Your task to perform on an android device: Open the phone app and click the voicemail tab. Image 0: 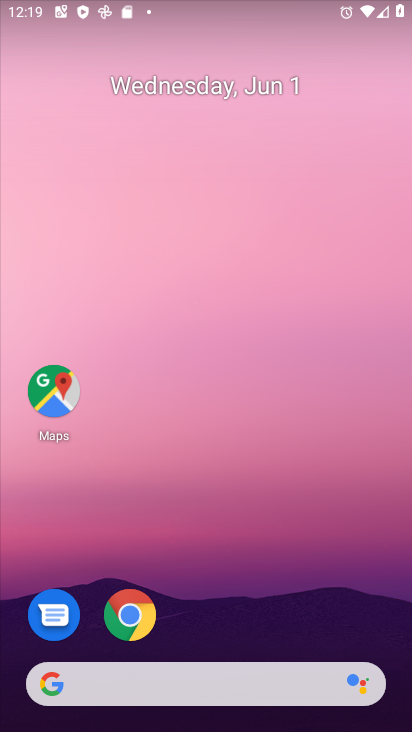
Step 0: drag from (305, 602) to (377, 69)
Your task to perform on an android device: Open the phone app and click the voicemail tab. Image 1: 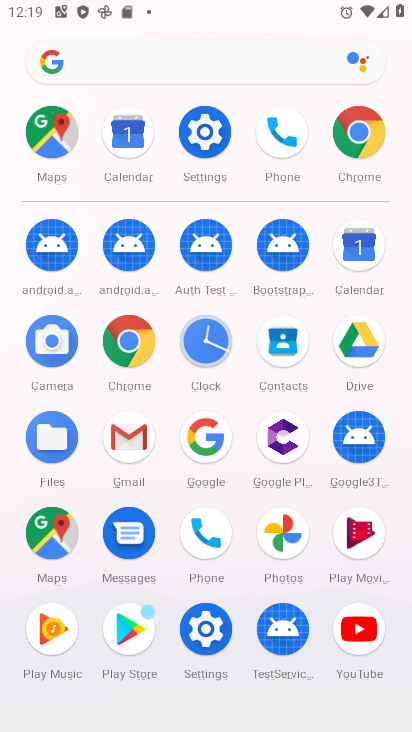
Step 1: click (212, 572)
Your task to perform on an android device: Open the phone app and click the voicemail tab. Image 2: 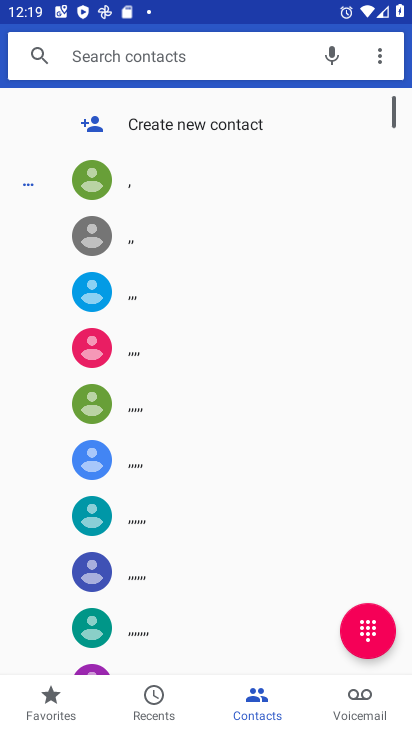
Step 2: click (350, 707)
Your task to perform on an android device: Open the phone app and click the voicemail tab. Image 3: 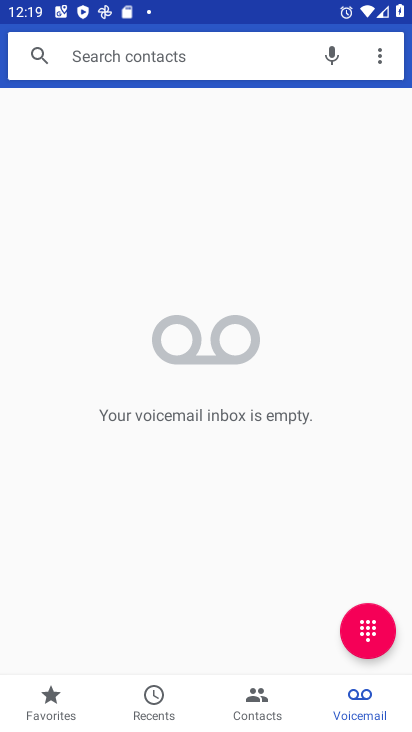
Step 3: task complete